Your task to perform on an android device: open the mobile data screen to see how much data has been used Image 0: 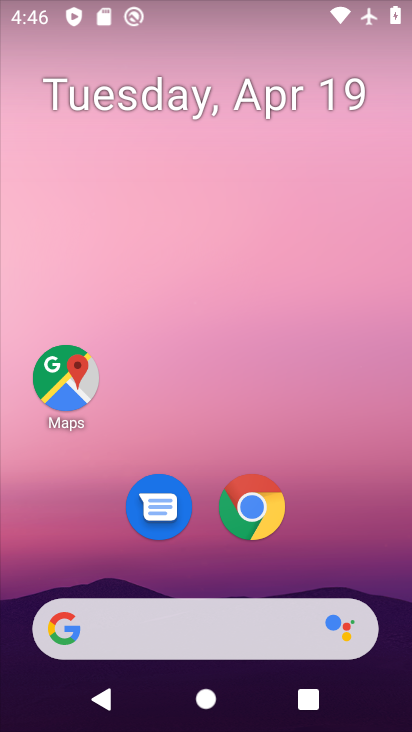
Step 0: drag from (341, 528) to (314, 112)
Your task to perform on an android device: open the mobile data screen to see how much data has been used Image 1: 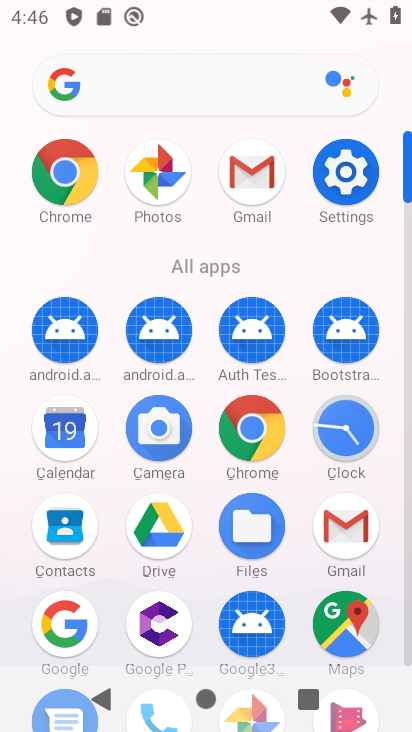
Step 1: click (358, 181)
Your task to perform on an android device: open the mobile data screen to see how much data has been used Image 2: 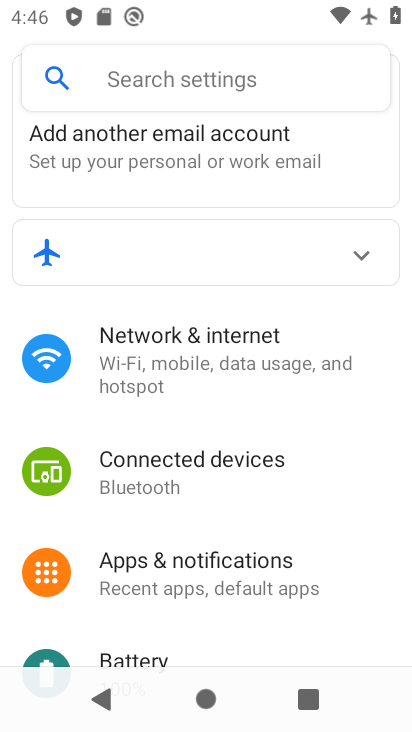
Step 2: click (233, 356)
Your task to perform on an android device: open the mobile data screen to see how much data has been used Image 3: 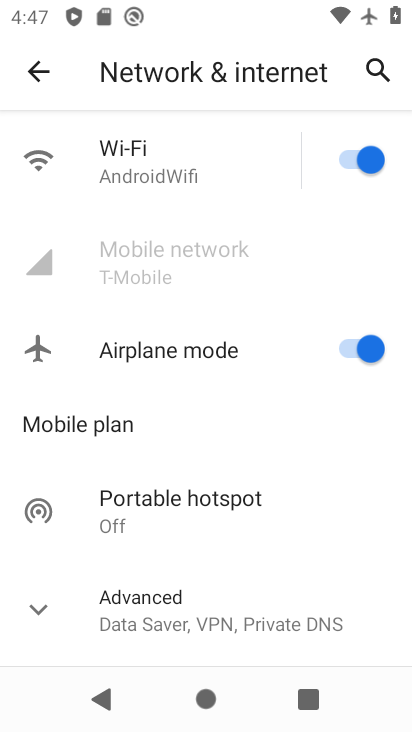
Step 3: click (163, 263)
Your task to perform on an android device: open the mobile data screen to see how much data has been used Image 4: 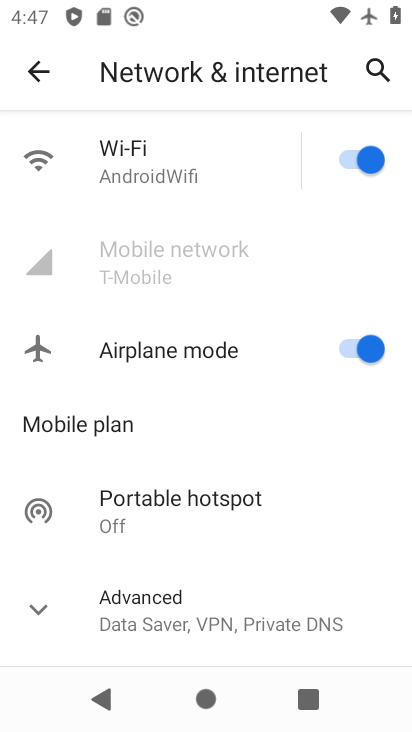
Step 4: click (163, 262)
Your task to perform on an android device: open the mobile data screen to see how much data has been used Image 5: 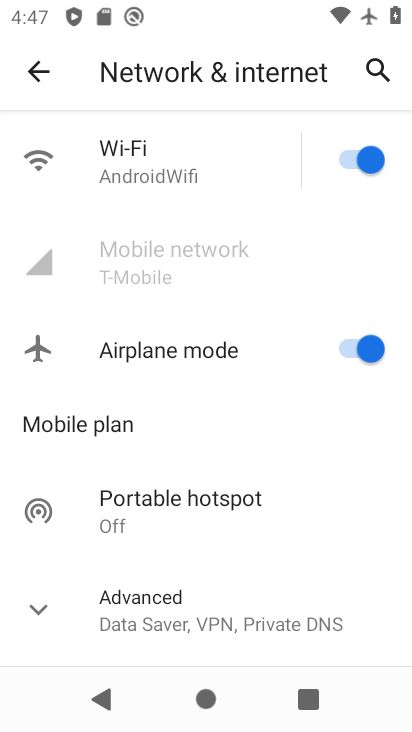
Step 5: task complete